Your task to perform on an android device: turn off picture-in-picture Image 0: 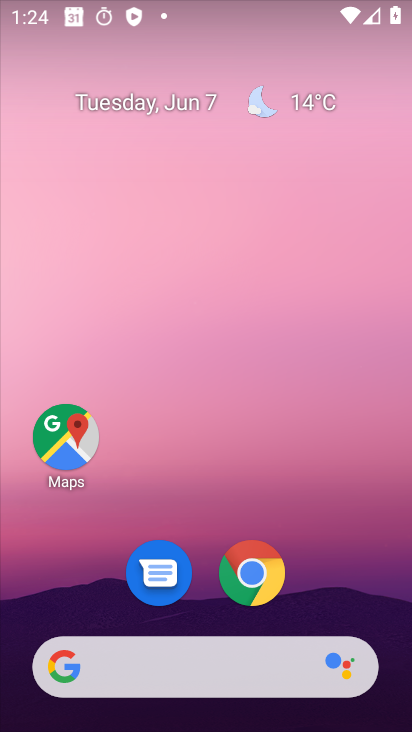
Step 0: click (247, 569)
Your task to perform on an android device: turn off picture-in-picture Image 1: 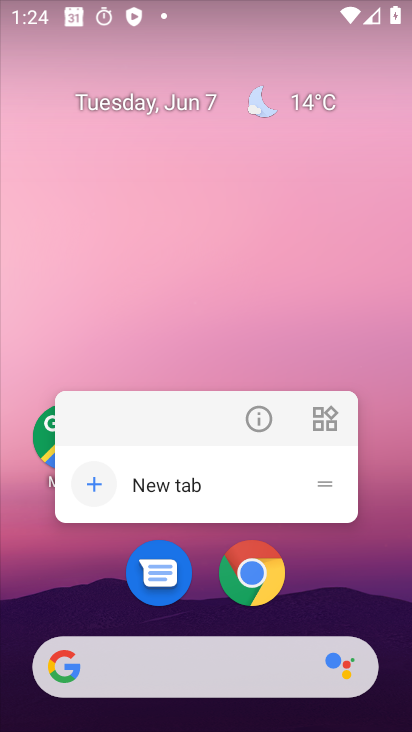
Step 1: click (257, 414)
Your task to perform on an android device: turn off picture-in-picture Image 2: 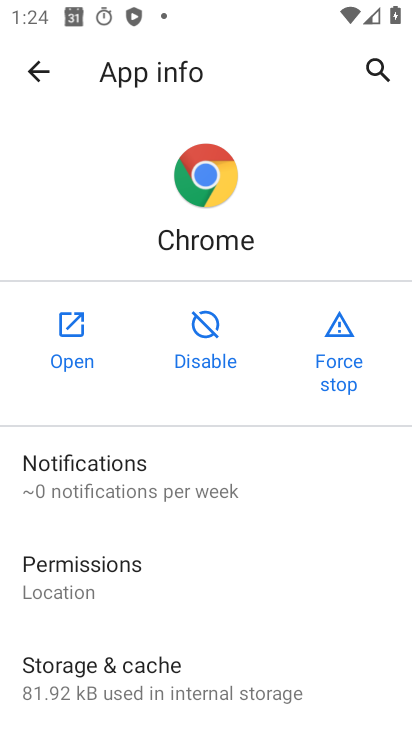
Step 2: drag from (216, 674) to (261, 161)
Your task to perform on an android device: turn off picture-in-picture Image 3: 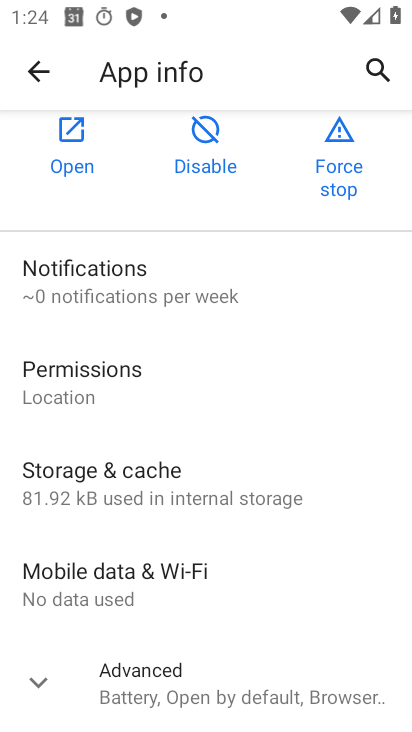
Step 3: click (44, 674)
Your task to perform on an android device: turn off picture-in-picture Image 4: 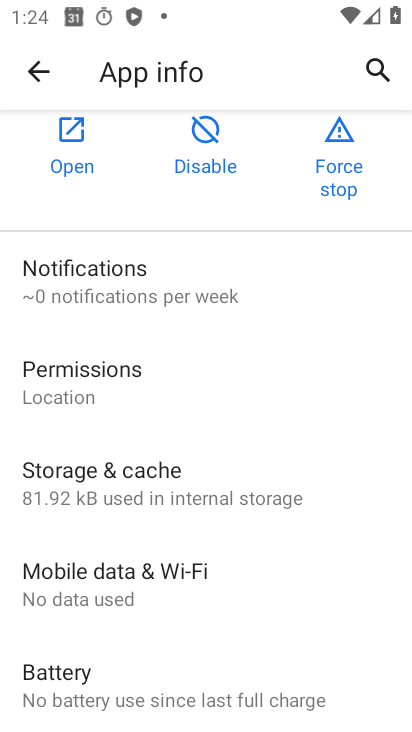
Step 4: drag from (209, 694) to (265, 128)
Your task to perform on an android device: turn off picture-in-picture Image 5: 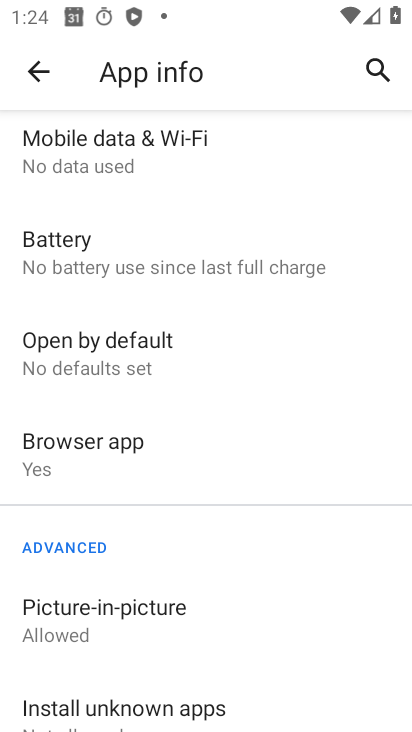
Step 5: click (121, 621)
Your task to perform on an android device: turn off picture-in-picture Image 6: 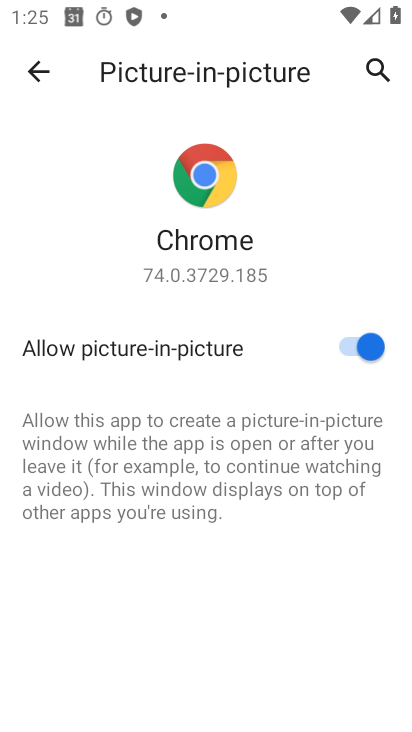
Step 6: click (348, 339)
Your task to perform on an android device: turn off picture-in-picture Image 7: 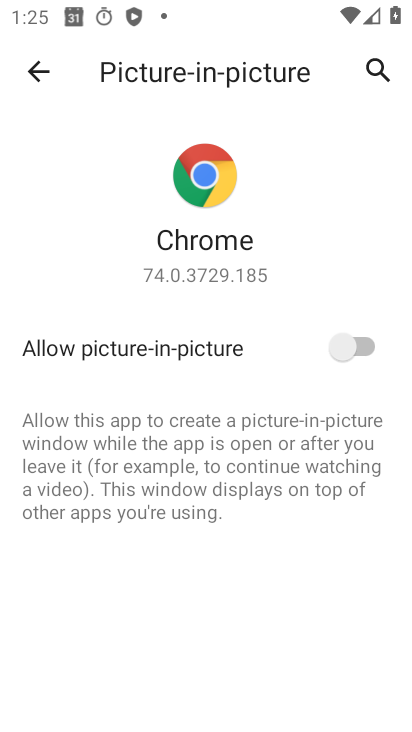
Step 7: task complete